Your task to perform on an android device: turn notification dots on Image 0: 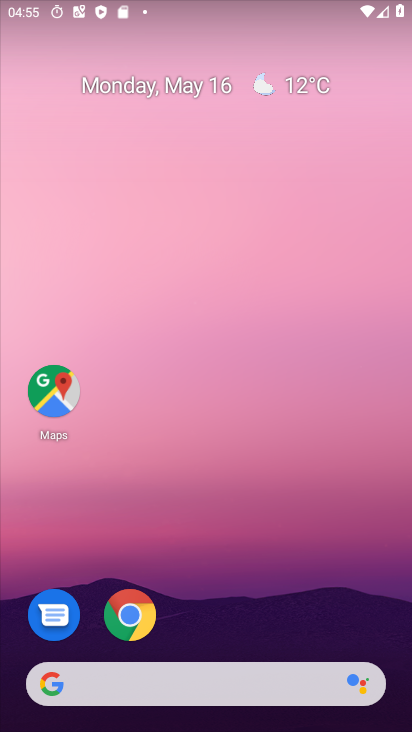
Step 0: drag from (221, 494) to (109, 68)
Your task to perform on an android device: turn notification dots on Image 1: 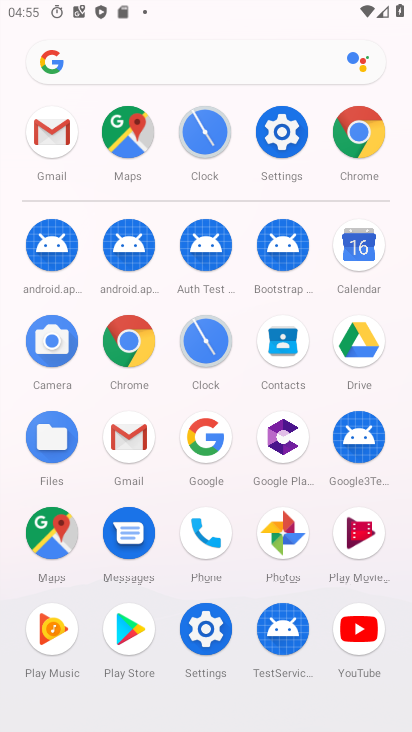
Step 1: click (263, 135)
Your task to perform on an android device: turn notification dots on Image 2: 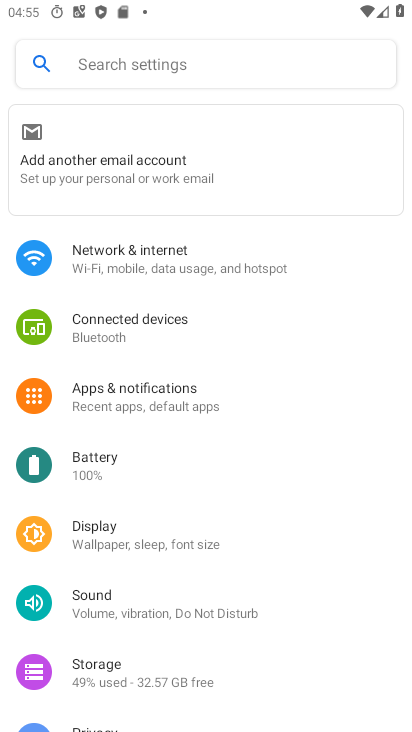
Step 2: click (114, 401)
Your task to perform on an android device: turn notification dots on Image 3: 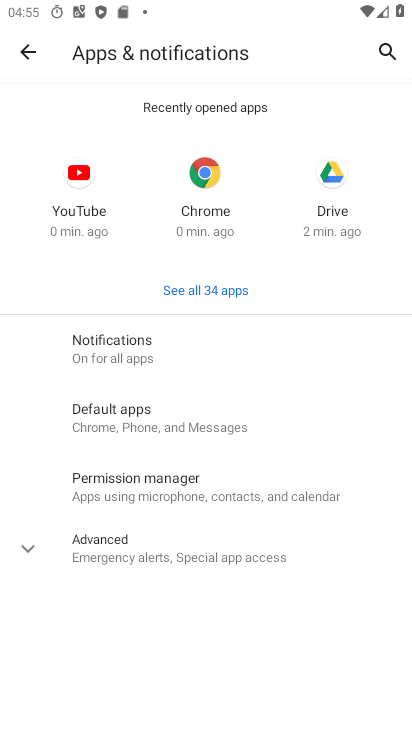
Step 3: click (131, 405)
Your task to perform on an android device: turn notification dots on Image 4: 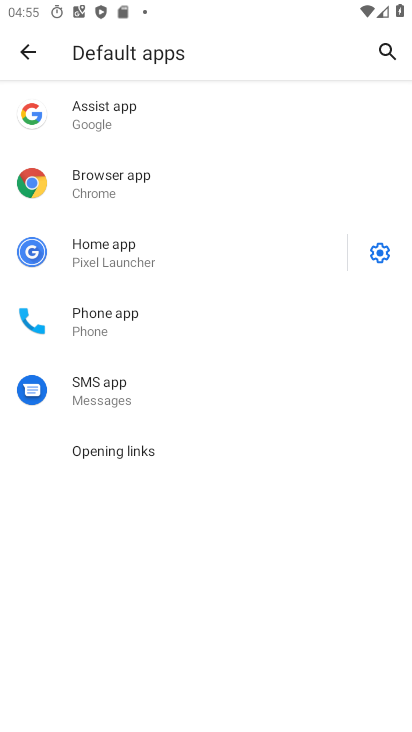
Step 4: click (19, 61)
Your task to perform on an android device: turn notification dots on Image 5: 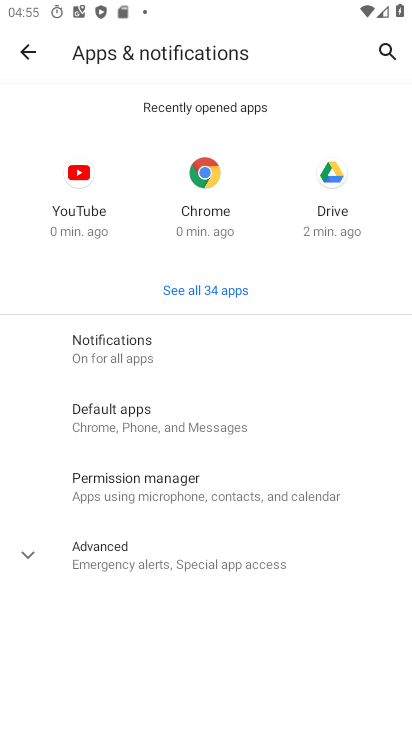
Step 5: click (126, 359)
Your task to perform on an android device: turn notification dots on Image 6: 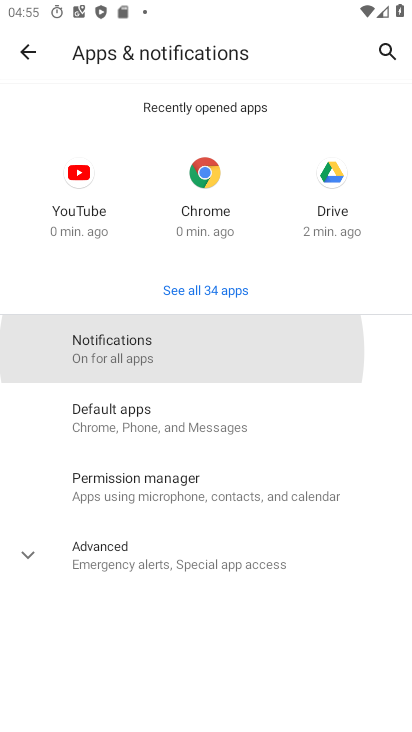
Step 6: click (126, 359)
Your task to perform on an android device: turn notification dots on Image 7: 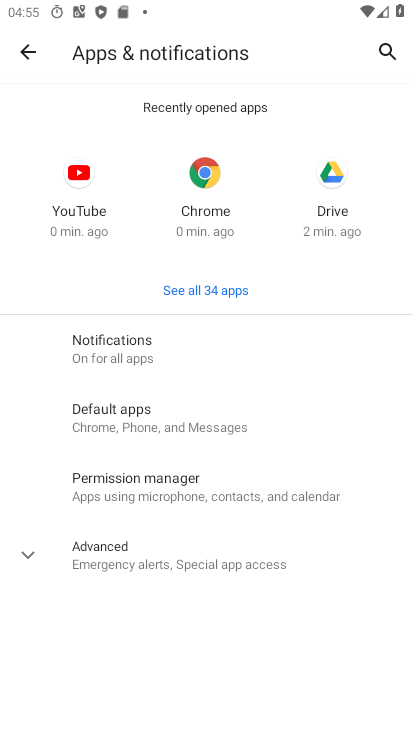
Step 7: click (126, 360)
Your task to perform on an android device: turn notification dots on Image 8: 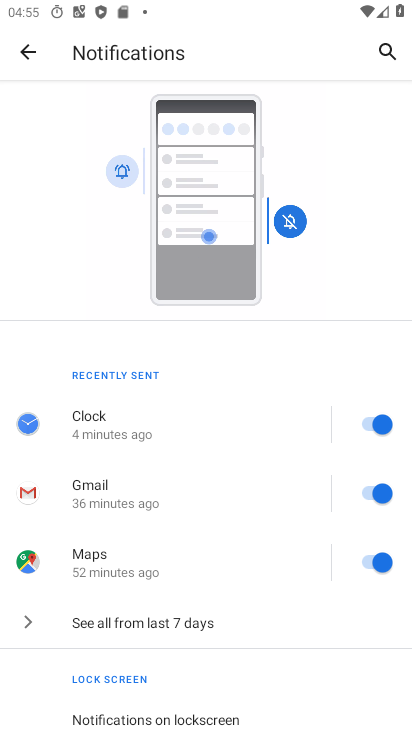
Step 8: drag from (126, 603) to (105, 187)
Your task to perform on an android device: turn notification dots on Image 9: 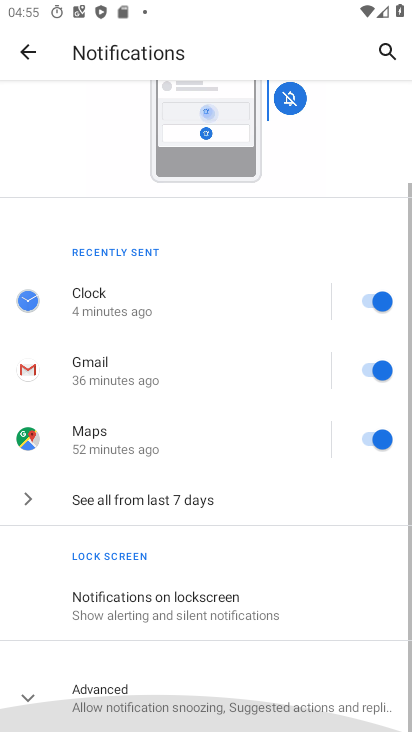
Step 9: drag from (150, 461) to (133, 140)
Your task to perform on an android device: turn notification dots on Image 10: 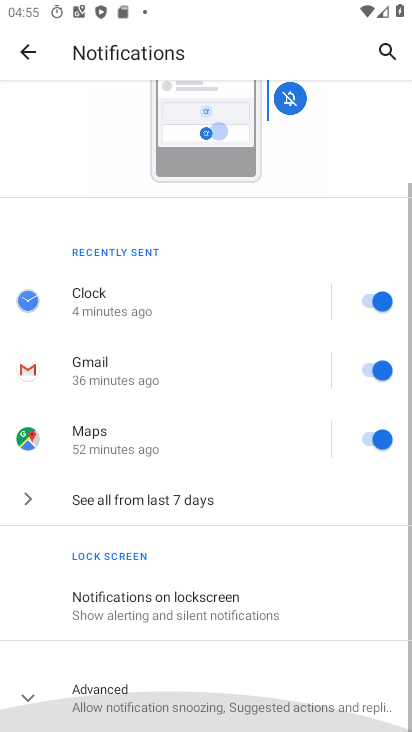
Step 10: drag from (190, 531) to (195, 228)
Your task to perform on an android device: turn notification dots on Image 11: 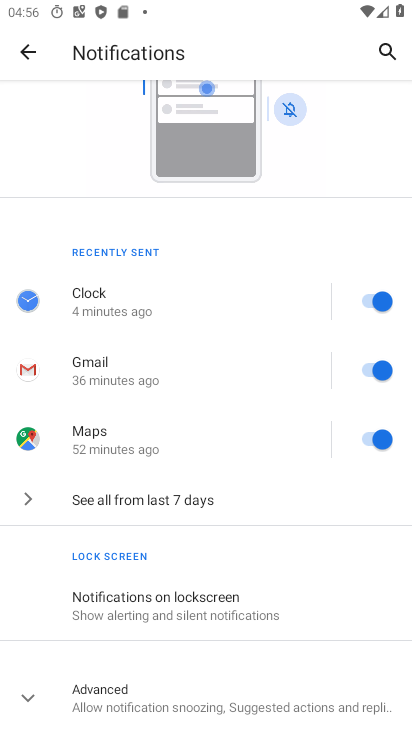
Step 11: click (126, 705)
Your task to perform on an android device: turn notification dots on Image 12: 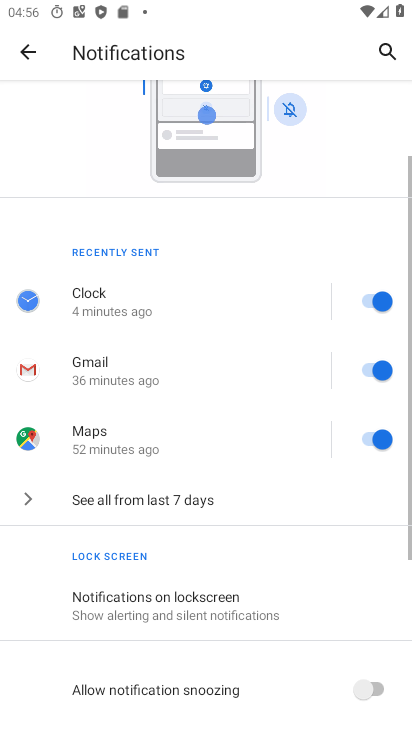
Step 12: drag from (159, 606) to (147, 289)
Your task to perform on an android device: turn notification dots on Image 13: 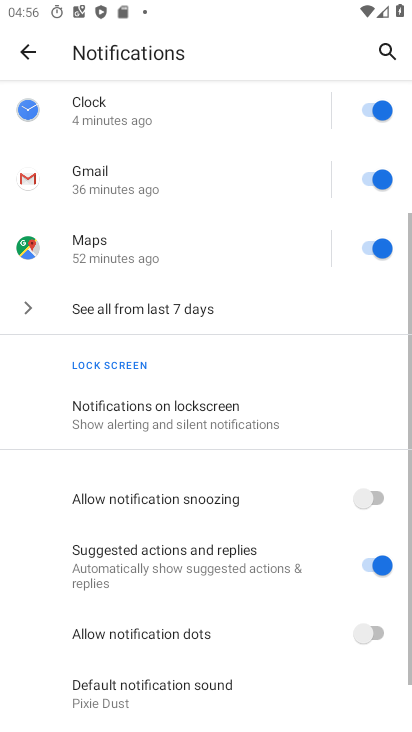
Step 13: drag from (241, 530) to (218, 293)
Your task to perform on an android device: turn notification dots on Image 14: 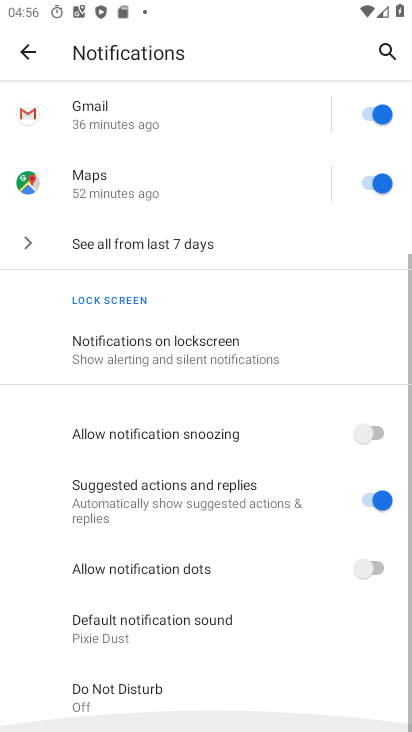
Step 14: drag from (202, 521) to (201, 260)
Your task to perform on an android device: turn notification dots on Image 15: 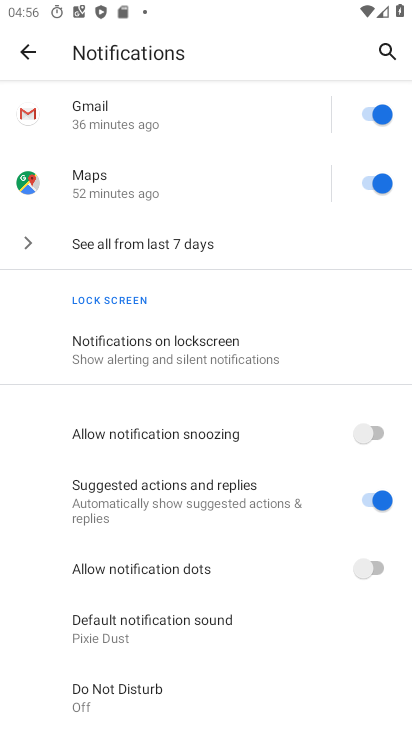
Step 15: click (365, 558)
Your task to perform on an android device: turn notification dots on Image 16: 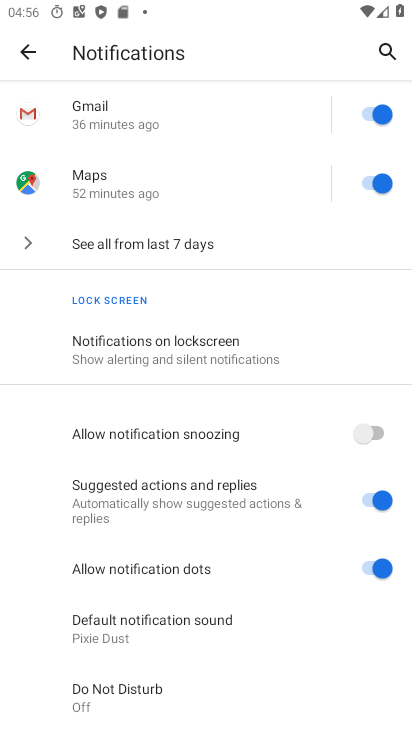
Step 16: task complete